Your task to perform on an android device: change notifications settings Image 0: 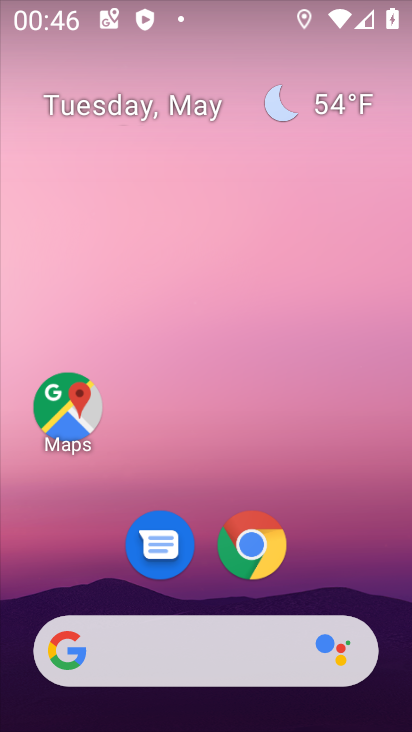
Step 0: drag from (318, 586) to (374, 138)
Your task to perform on an android device: change notifications settings Image 1: 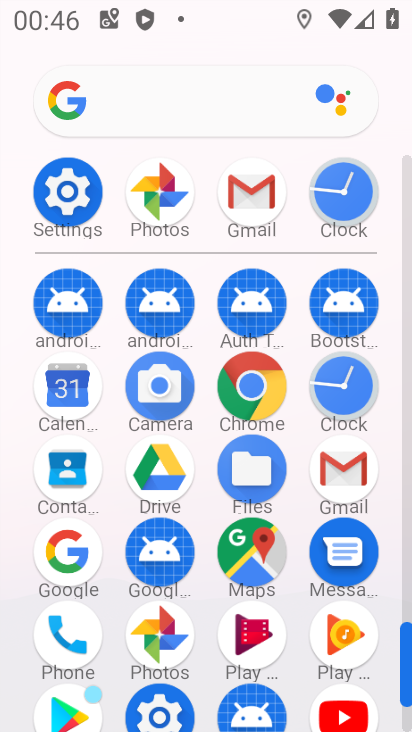
Step 1: click (64, 189)
Your task to perform on an android device: change notifications settings Image 2: 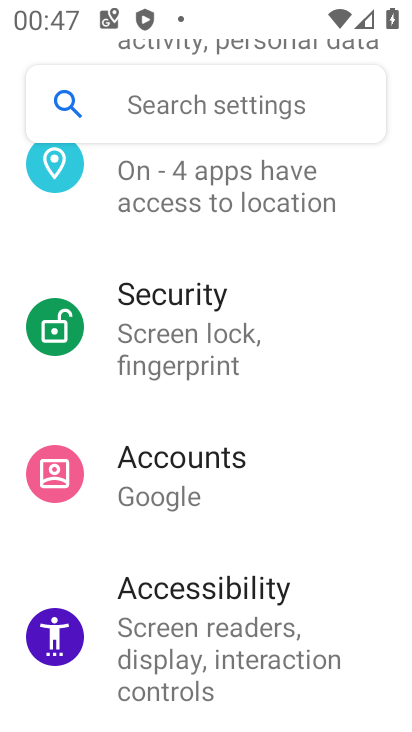
Step 2: drag from (166, 260) to (183, 671)
Your task to perform on an android device: change notifications settings Image 3: 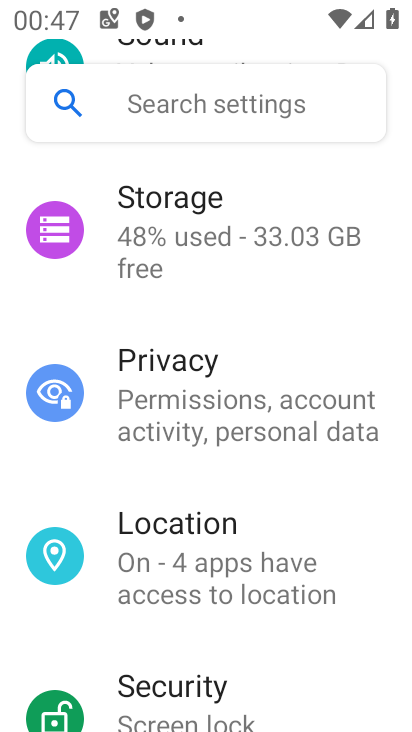
Step 3: drag from (166, 232) to (168, 548)
Your task to perform on an android device: change notifications settings Image 4: 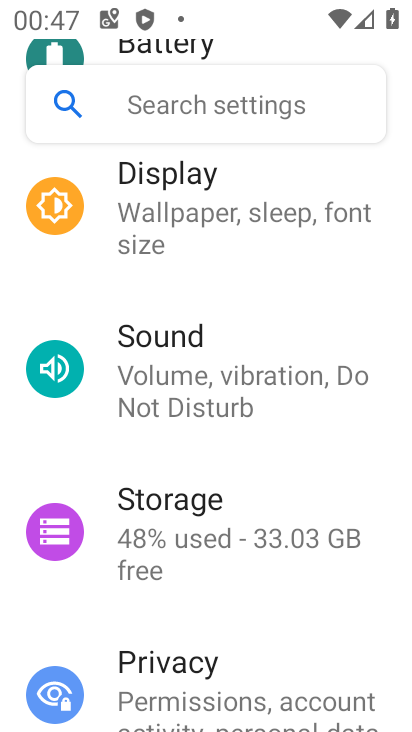
Step 4: drag from (162, 237) to (154, 521)
Your task to perform on an android device: change notifications settings Image 5: 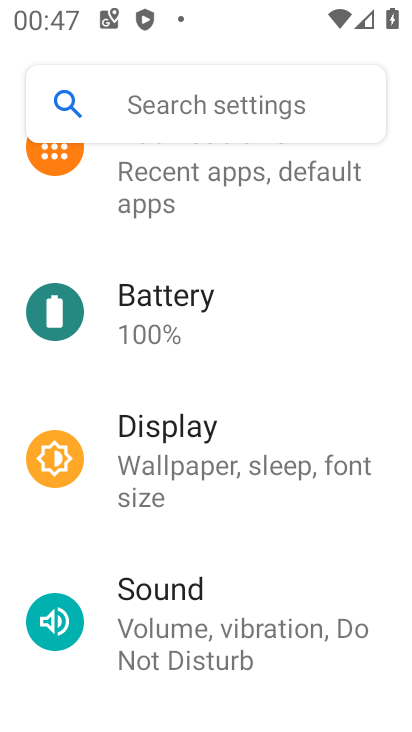
Step 5: drag from (158, 202) to (176, 322)
Your task to perform on an android device: change notifications settings Image 6: 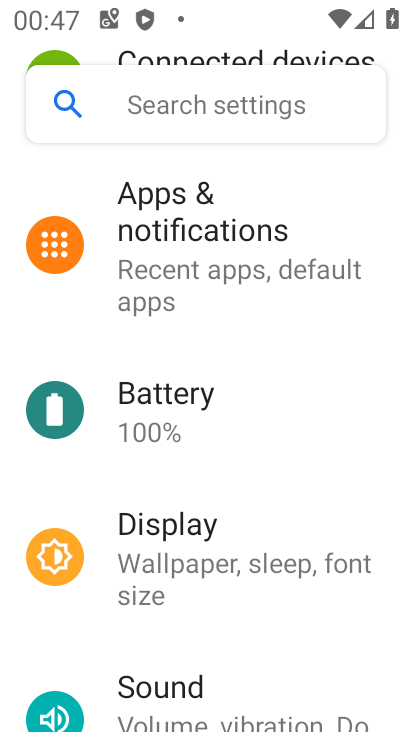
Step 6: click (174, 272)
Your task to perform on an android device: change notifications settings Image 7: 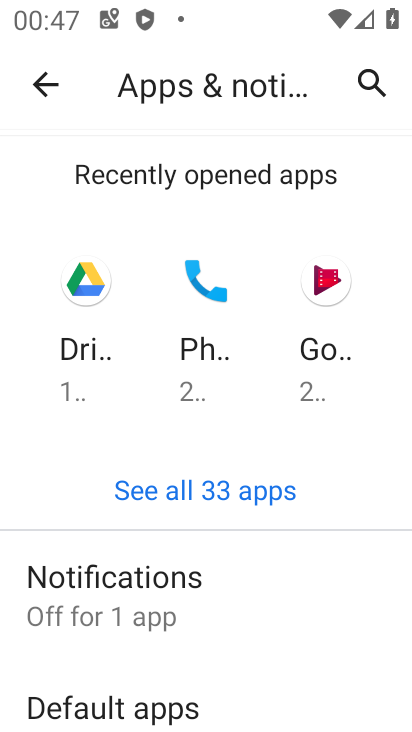
Step 7: drag from (199, 633) to (206, 265)
Your task to perform on an android device: change notifications settings Image 8: 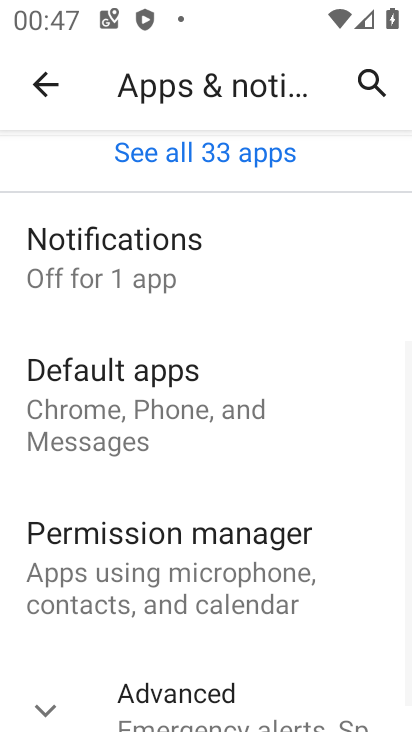
Step 8: click (206, 265)
Your task to perform on an android device: change notifications settings Image 9: 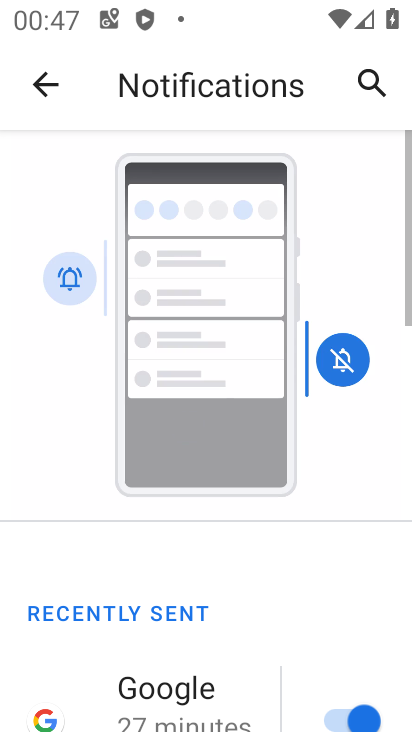
Step 9: drag from (217, 630) to (213, 156)
Your task to perform on an android device: change notifications settings Image 10: 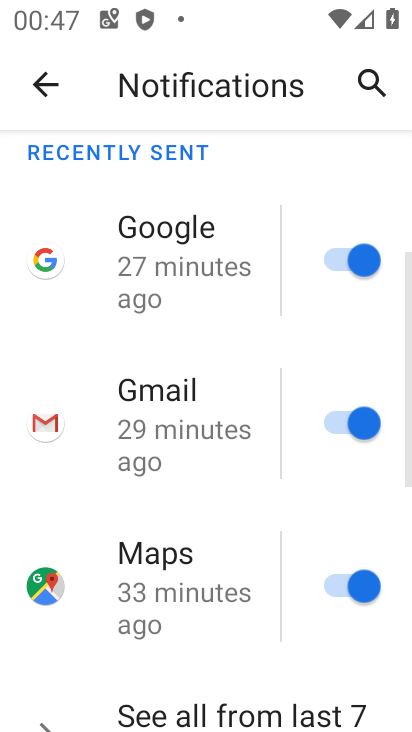
Step 10: drag from (210, 461) to (199, 59)
Your task to perform on an android device: change notifications settings Image 11: 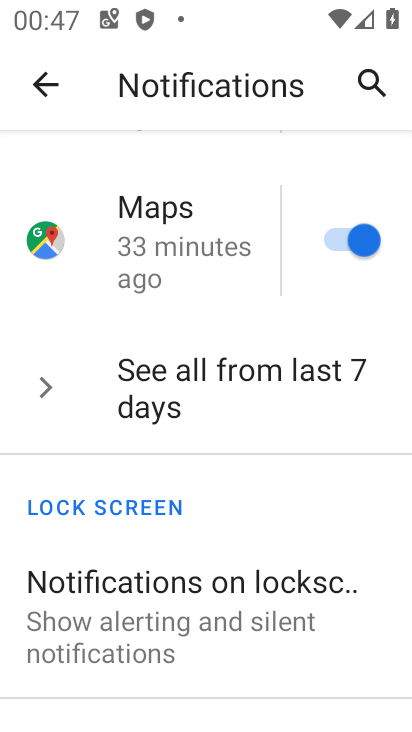
Step 11: drag from (259, 558) to (221, 84)
Your task to perform on an android device: change notifications settings Image 12: 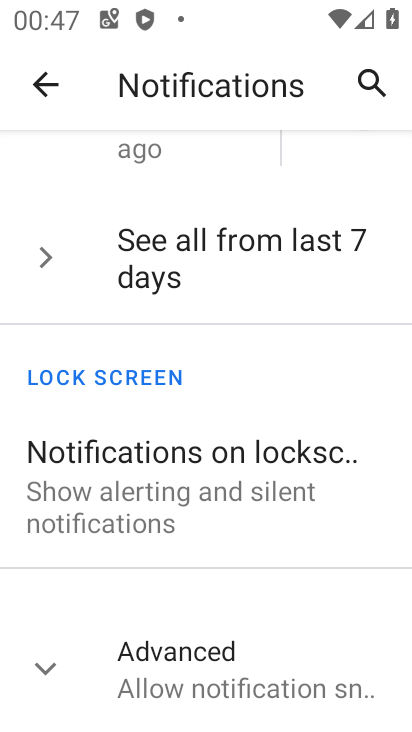
Step 12: click (202, 646)
Your task to perform on an android device: change notifications settings Image 13: 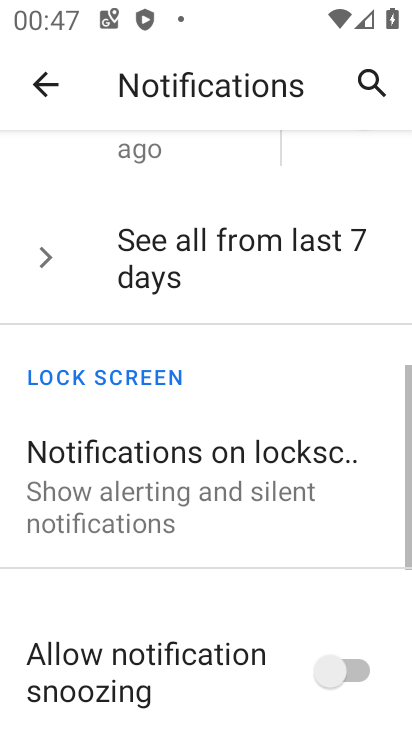
Step 13: drag from (201, 633) to (197, 72)
Your task to perform on an android device: change notifications settings Image 14: 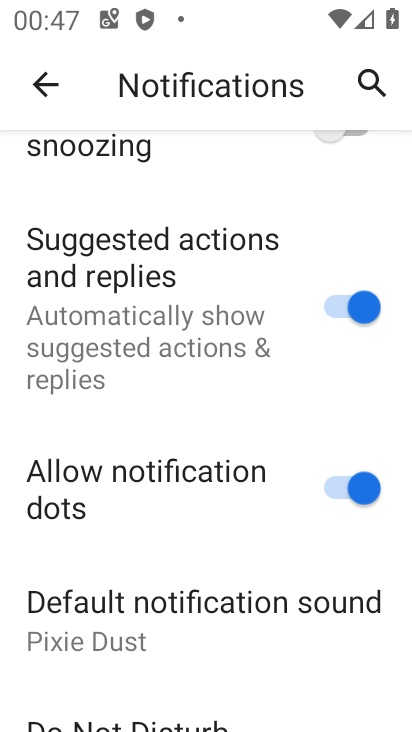
Step 14: click (364, 473)
Your task to perform on an android device: change notifications settings Image 15: 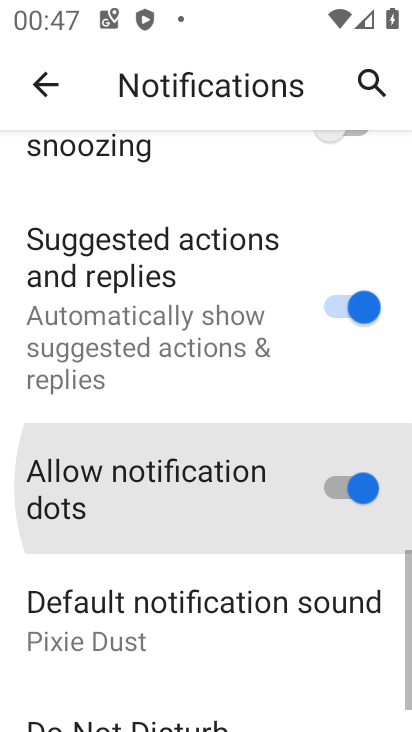
Step 15: click (346, 308)
Your task to perform on an android device: change notifications settings Image 16: 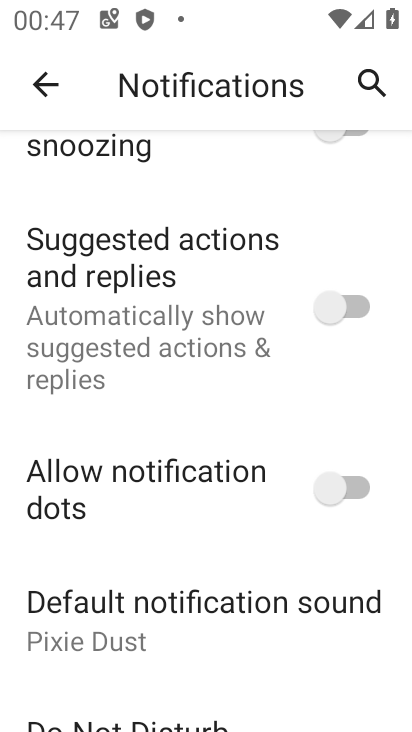
Step 16: task complete